Your task to perform on an android device: Open Google Chrome and click the shortcut for Amazon.com Image 0: 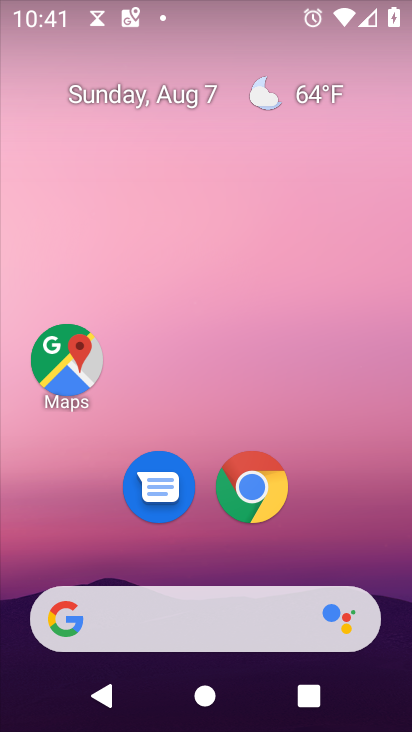
Step 0: click (249, 489)
Your task to perform on an android device: Open Google Chrome and click the shortcut for Amazon.com Image 1: 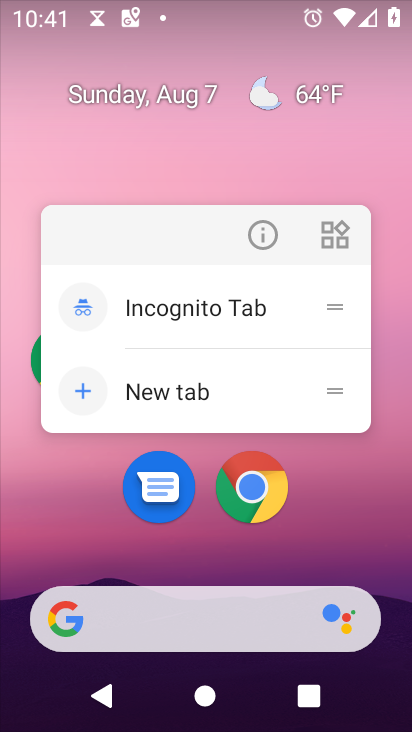
Step 1: click (242, 486)
Your task to perform on an android device: Open Google Chrome and click the shortcut for Amazon.com Image 2: 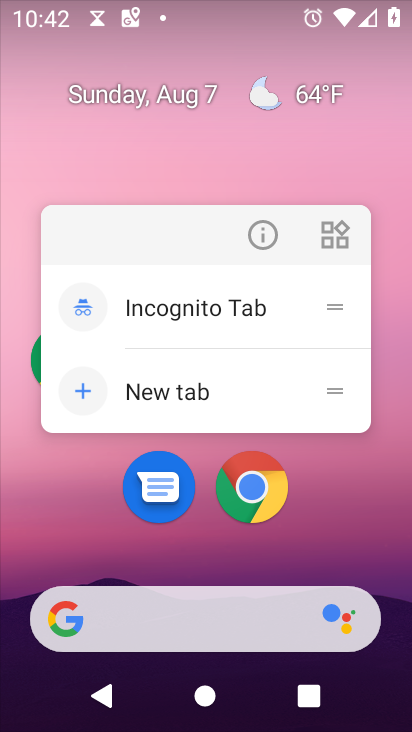
Step 2: click (256, 482)
Your task to perform on an android device: Open Google Chrome and click the shortcut for Amazon.com Image 3: 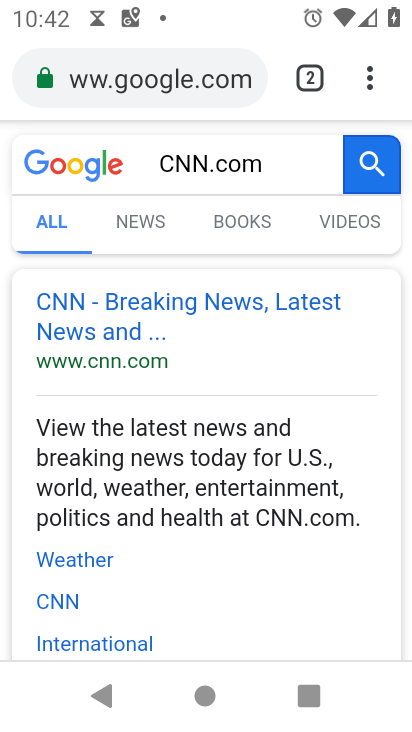
Step 3: click (367, 76)
Your task to perform on an android device: Open Google Chrome and click the shortcut for Amazon.com Image 4: 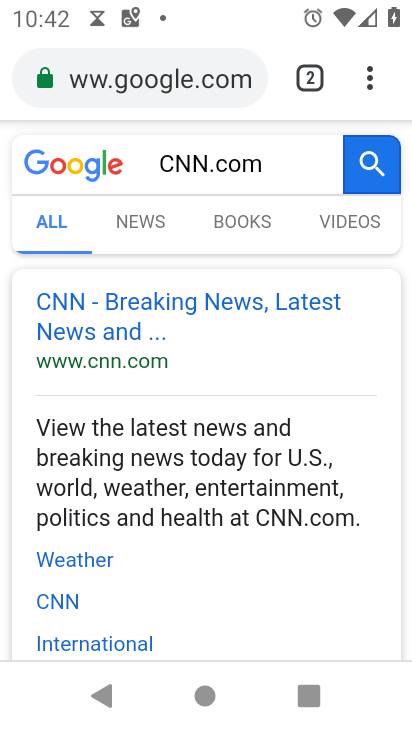
Step 4: click (371, 66)
Your task to perform on an android device: Open Google Chrome and click the shortcut for Amazon.com Image 5: 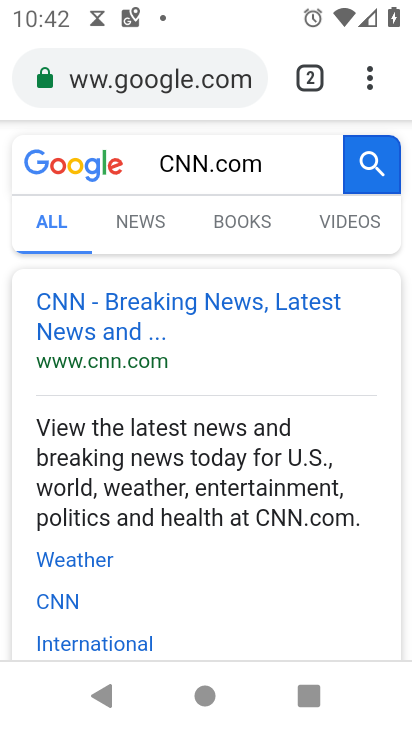
Step 5: click (369, 74)
Your task to perform on an android device: Open Google Chrome and click the shortcut for Amazon.com Image 6: 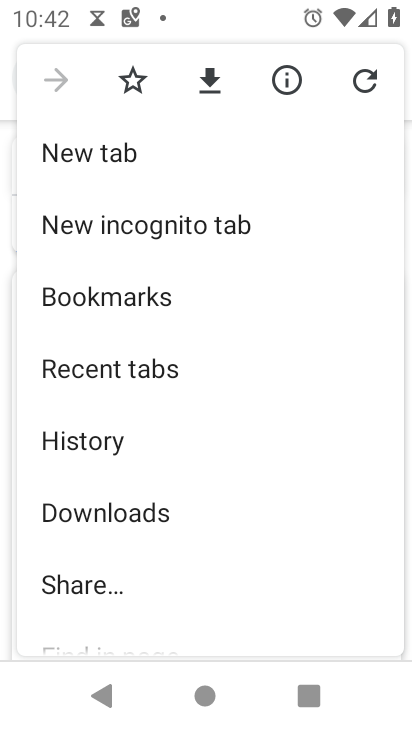
Step 6: click (110, 151)
Your task to perform on an android device: Open Google Chrome and click the shortcut for Amazon.com Image 7: 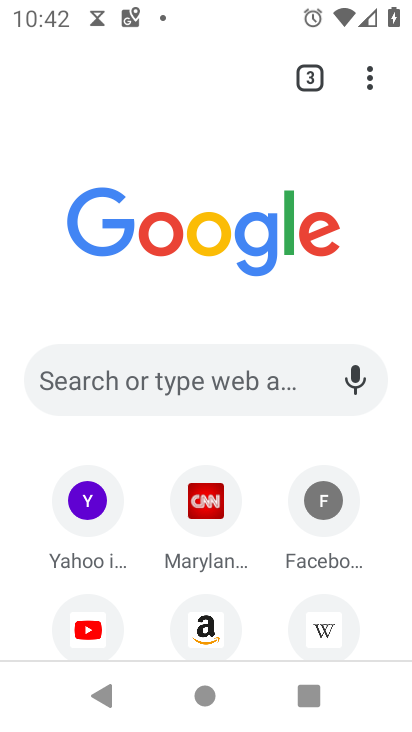
Step 7: click (218, 621)
Your task to perform on an android device: Open Google Chrome and click the shortcut for Amazon.com Image 8: 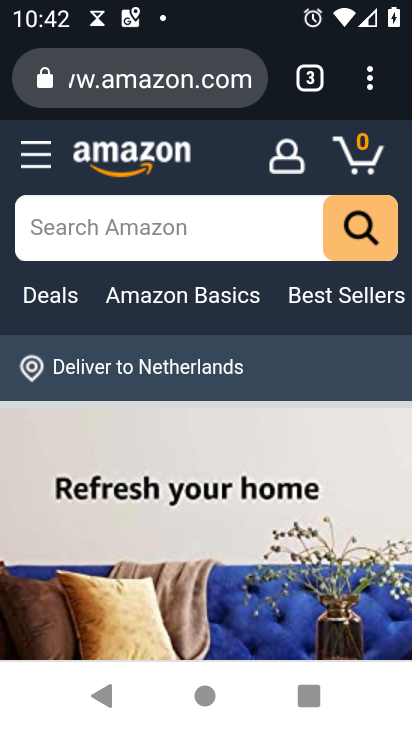
Step 8: task complete